Your task to perform on an android device: Open my contact list Image 0: 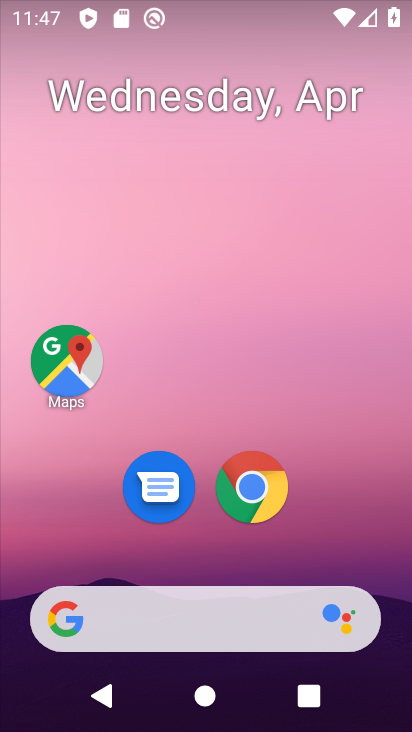
Step 0: drag from (298, 699) to (249, 225)
Your task to perform on an android device: Open my contact list Image 1: 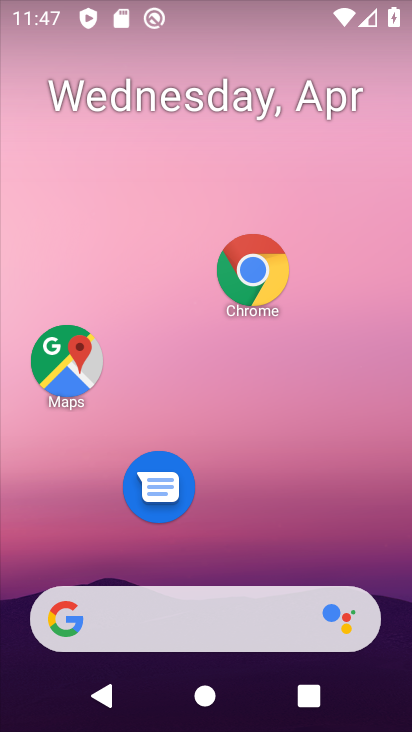
Step 1: drag from (247, 217) to (225, 144)
Your task to perform on an android device: Open my contact list Image 2: 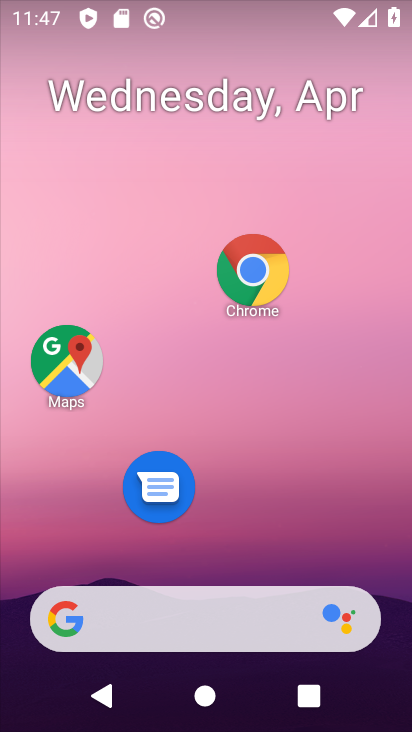
Step 2: drag from (318, 466) to (226, 141)
Your task to perform on an android device: Open my contact list Image 3: 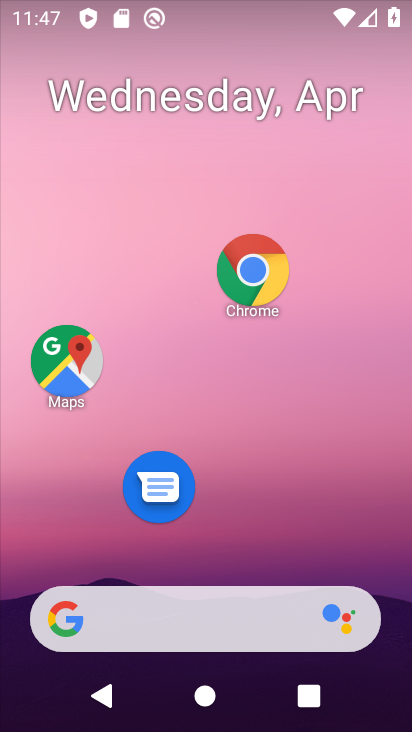
Step 3: drag from (196, 558) to (190, 340)
Your task to perform on an android device: Open my contact list Image 4: 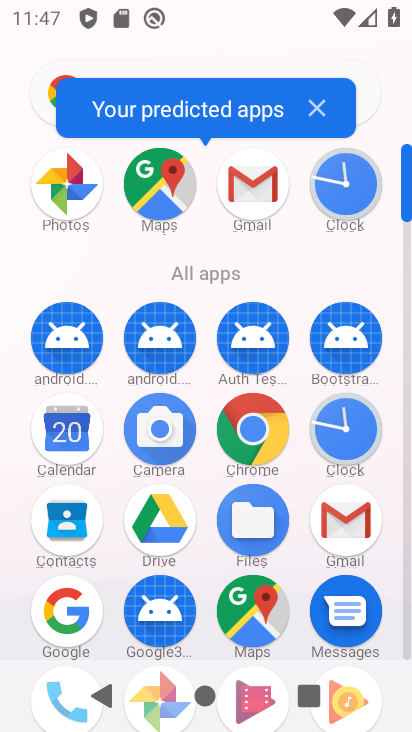
Step 4: click (227, 183)
Your task to perform on an android device: Open my contact list Image 5: 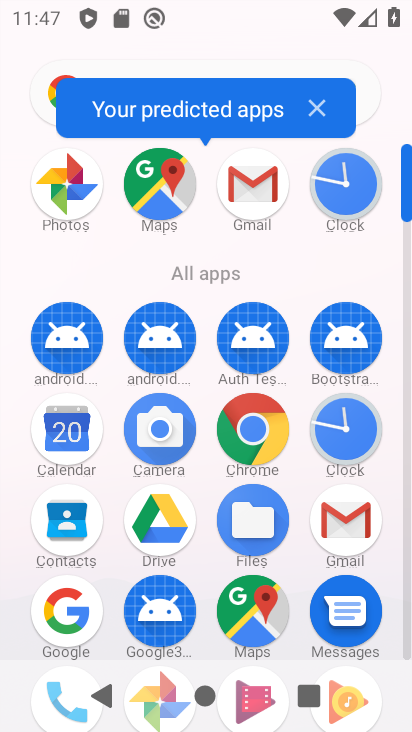
Step 5: drag from (217, 419) to (147, 187)
Your task to perform on an android device: Open my contact list Image 6: 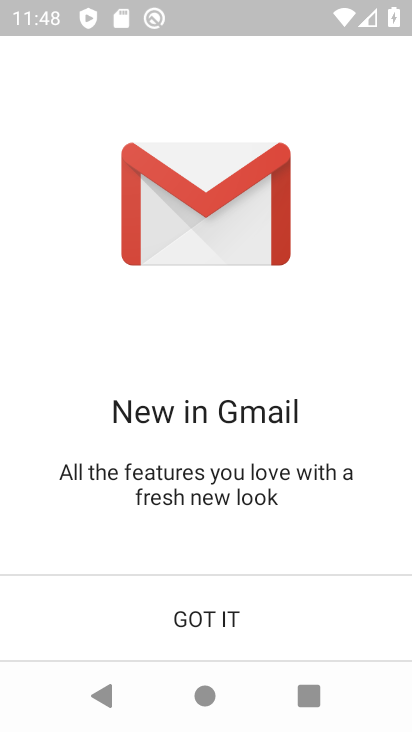
Step 6: click (403, 634)
Your task to perform on an android device: Open my contact list Image 7: 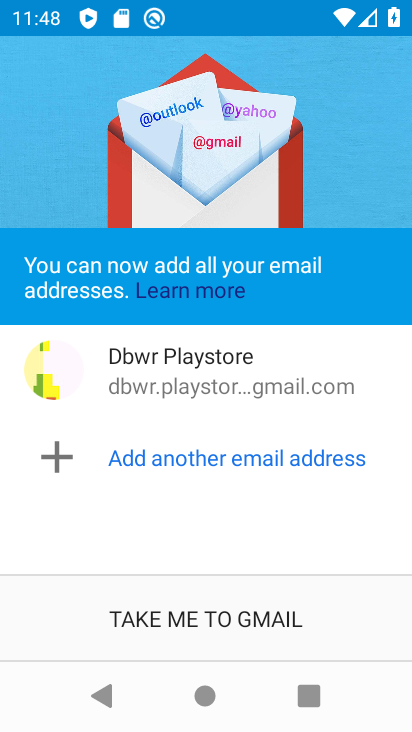
Step 7: press home button
Your task to perform on an android device: Open my contact list Image 8: 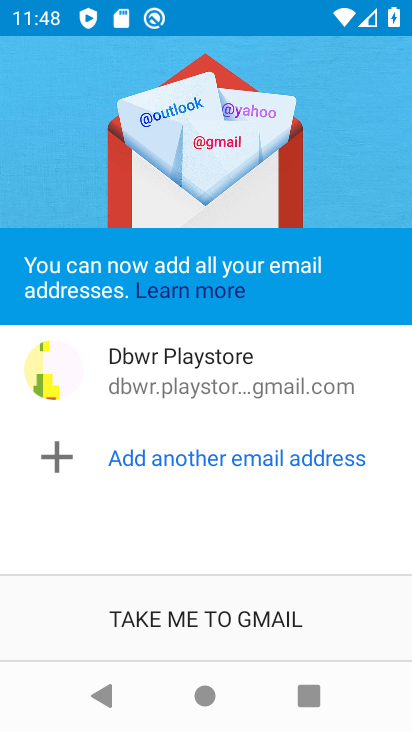
Step 8: press home button
Your task to perform on an android device: Open my contact list Image 9: 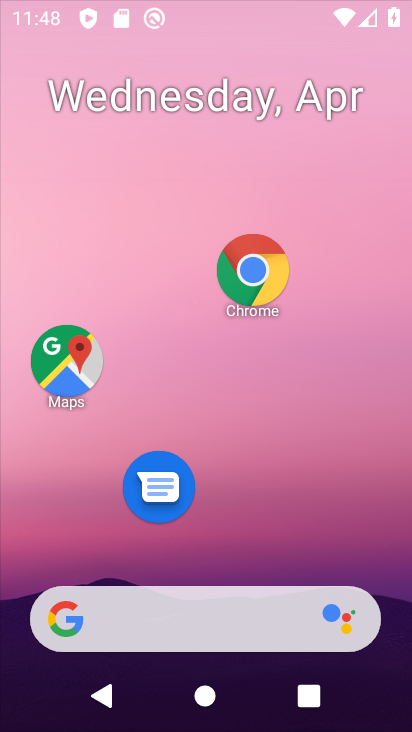
Step 9: press home button
Your task to perform on an android device: Open my contact list Image 10: 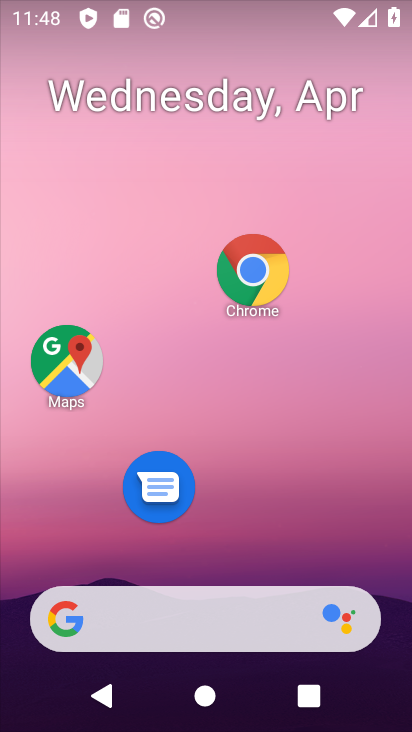
Step 10: press home button
Your task to perform on an android device: Open my contact list Image 11: 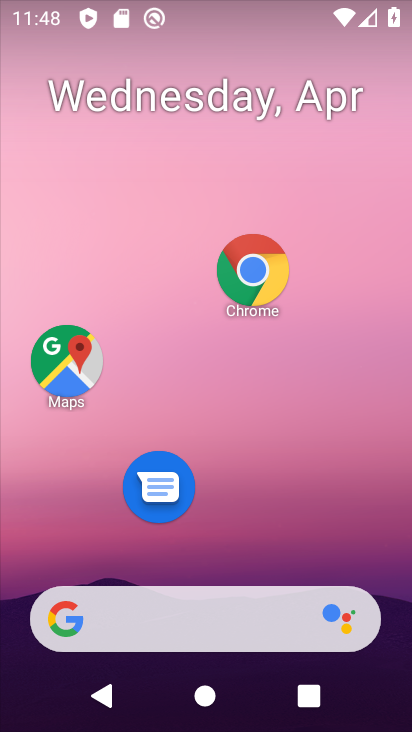
Step 11: press back button
Your task to perform on an android device: Open my contact list Image 12: 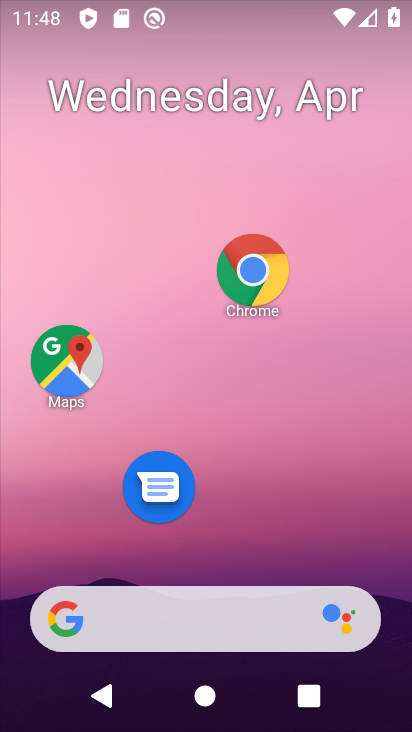
Step 12: drag from (333, 631) to (117, 183)
Your task to perform on an android device: Open my contact list Image 13: 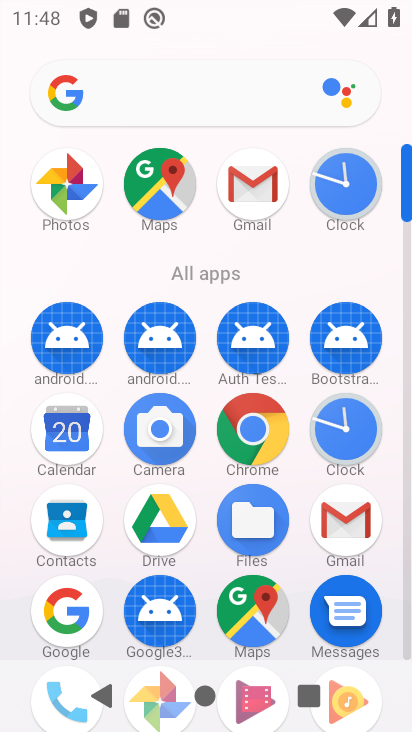
Step 13: click (98, 206)
Your task to perform on an android device: Open my contact list Image 14: 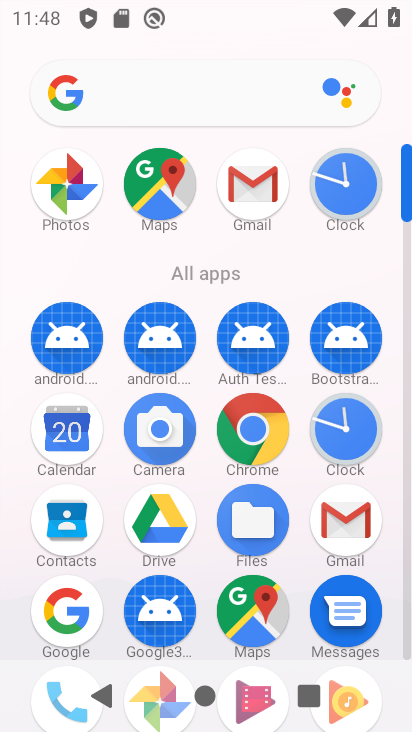
Step 14: click (155, 222)
Your task to perform on an android device: Open my contact list Image 15: 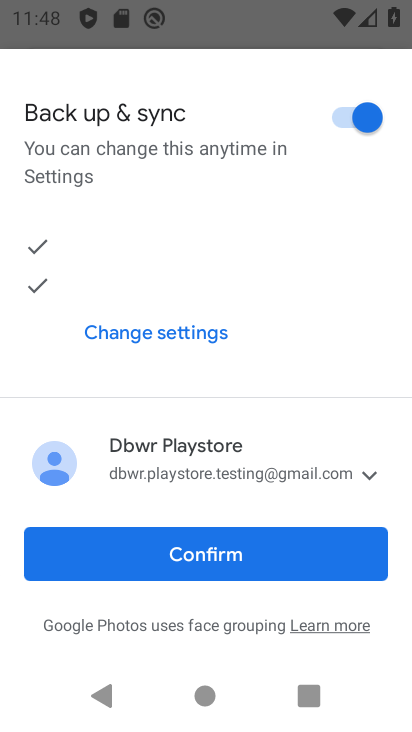
Step 15: press home button
Your task to perform on an android device: Open my contact list Image 16: 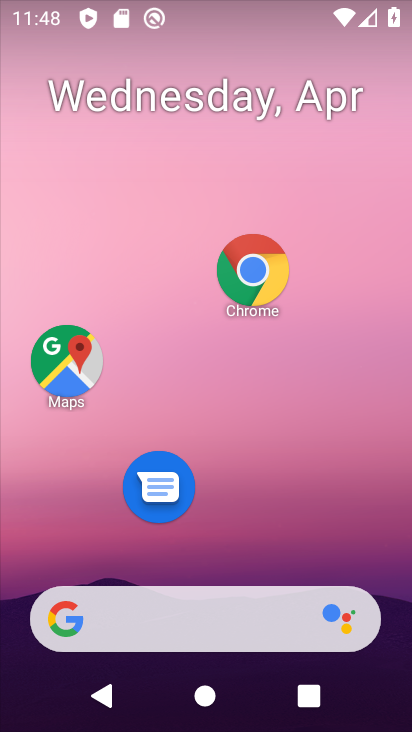
Step 16: click (168, 205)
Your task to perform on an android device: Open my contact list Image 17: 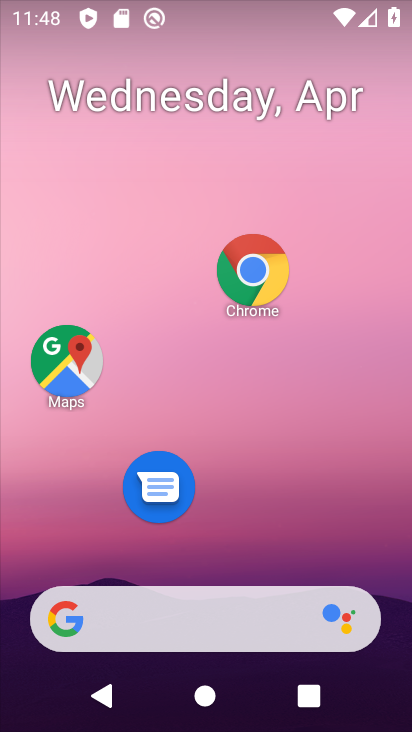
Step 17: drag from (319, 584) to (112, 1)
Your task to perform on an android device: Open my contact list Image 18: 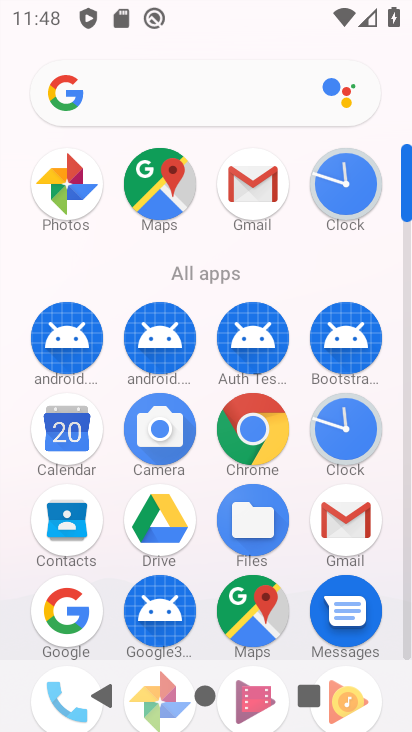
Step 18: click (70, 524)
Your task to perform on an android device: Open my contact list Image 19: 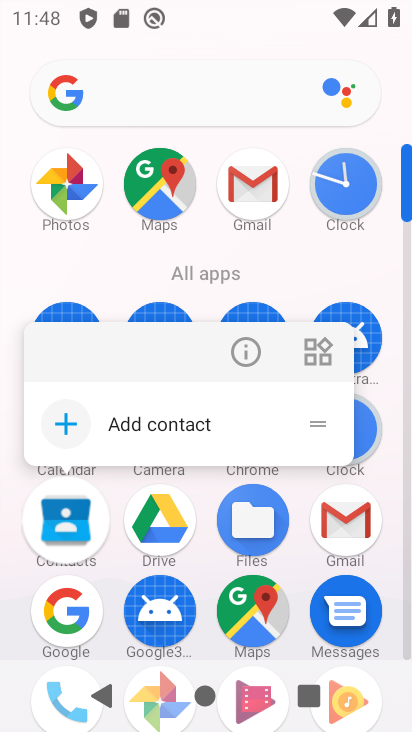
Step 19: click (70, 524)
Your task to perform on an android device: Open my contact list Image 20: 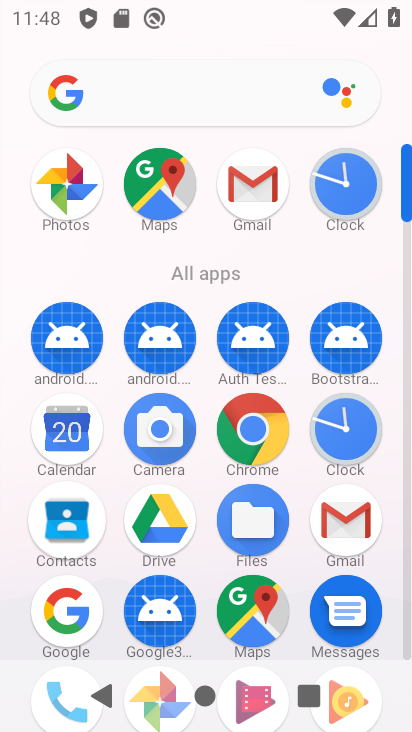
Step 20: click (70, 522)
Your task to perform on an android device: Open my contact list Image 21: 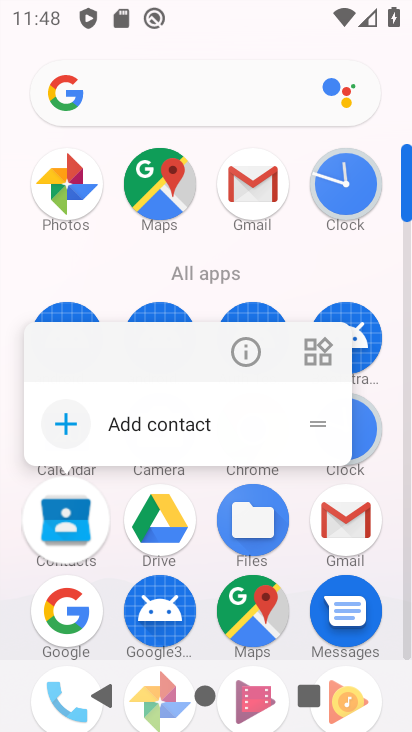
Step 21: click (70, 522)
Your task to perform on an android device: Open my contact list Image 22: 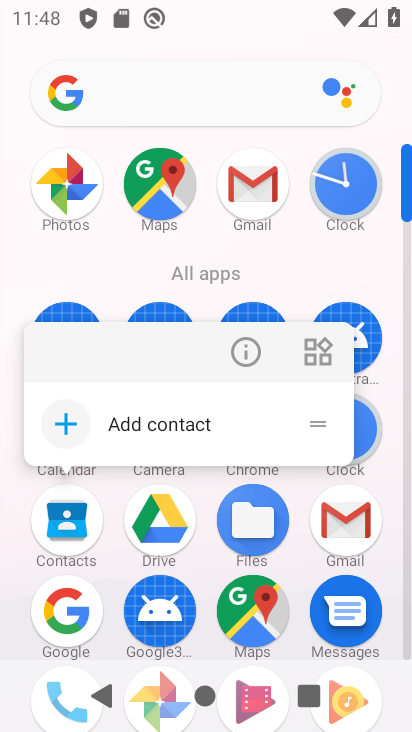
Step 22: click (74, 516)
Your task to perform on an android device: Open my contact list Image 23: 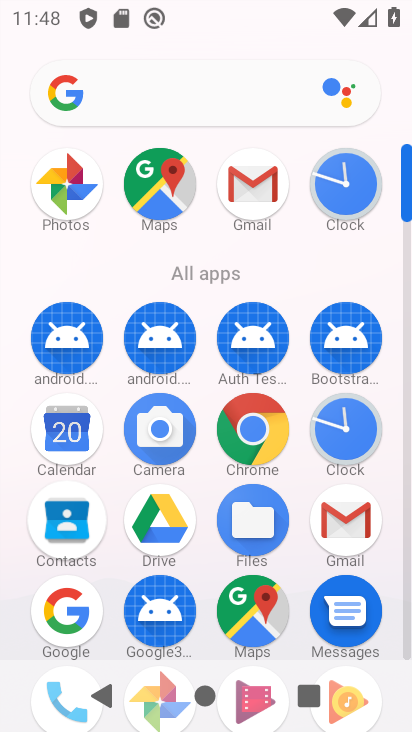
Step 23: click (77, 513)
Your task to perform on an android device: Open my contact list Image 24: 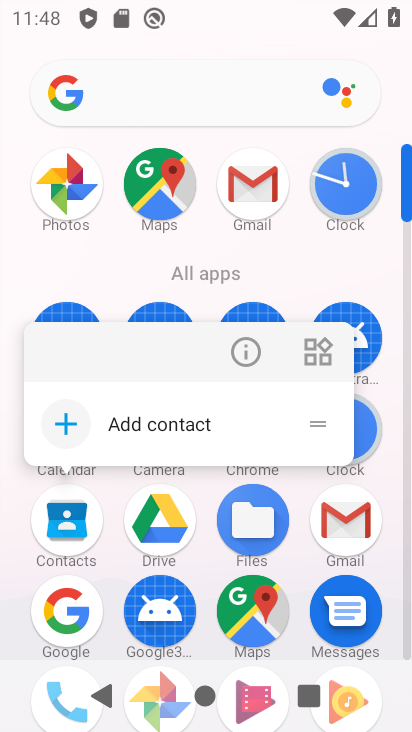
Step 24: drag from (77, 513) to (77, 664)
Your task to perform on an android device: Open my contact list Image 25: 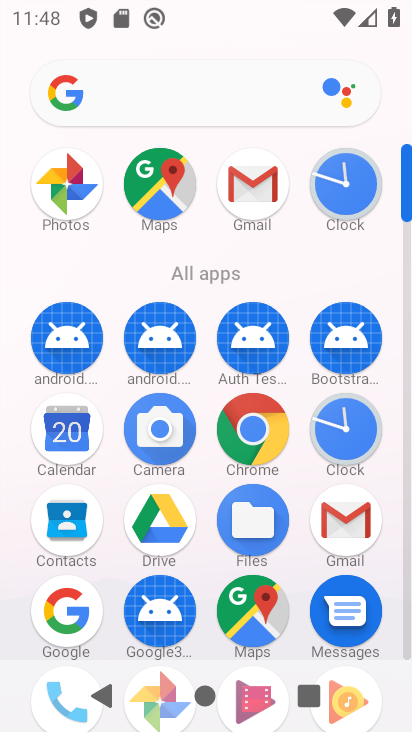
Step 25: click (68, 521)
Your task to perform on an android device: Open my contact list Image 26: 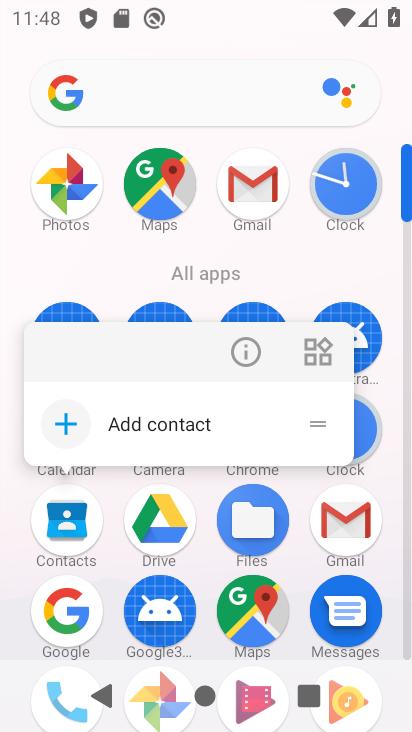
Step 26: click (321, 570)
Your task to perform on an android device: Open my contact list Image 27: 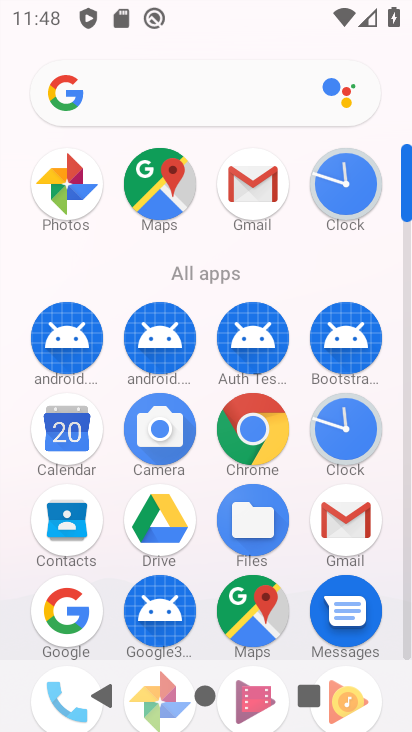
Step 27: click (60, 524)
Your task to perform on an android device: Open my contact list Image 28: 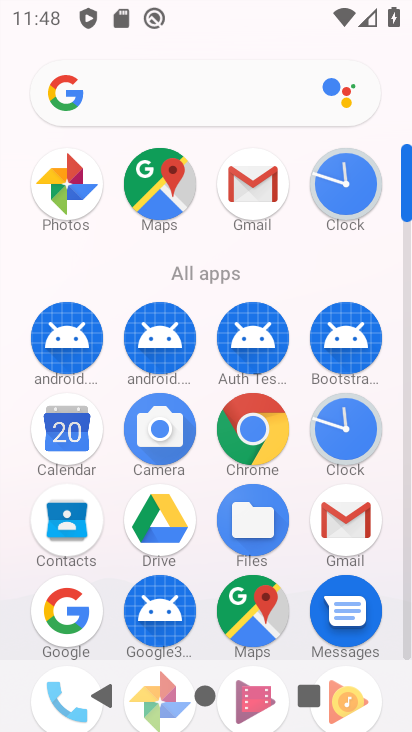
Step 28: click (57, 517)
Your task to perform on an android device: Open my contact list Image 29: 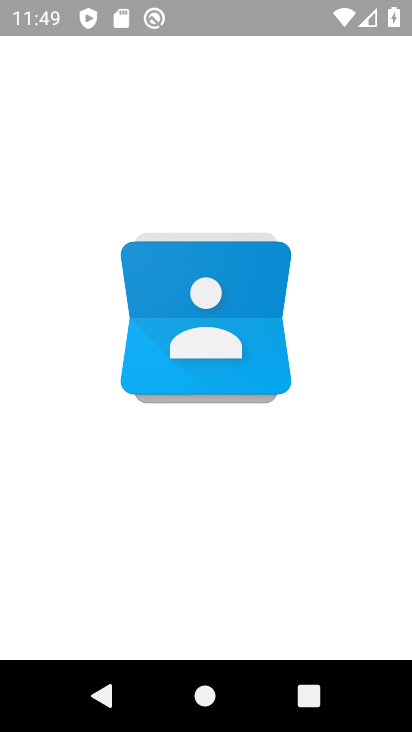
Step 29: click (45, 522)
Your task to perform on an android device: Open my contact list Image 30: 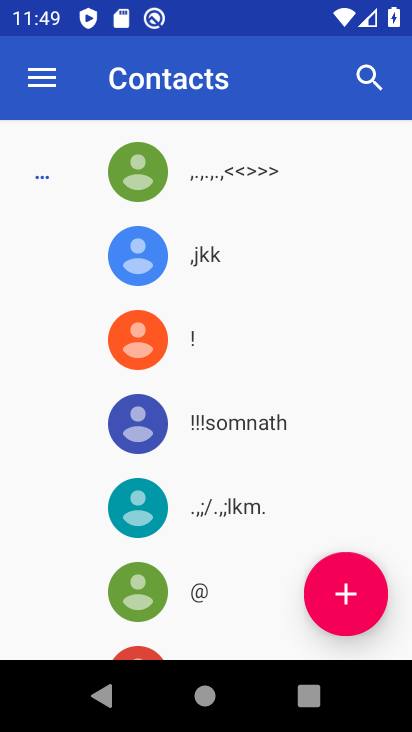
Step 30: click (70, 527)
Your task to perform on an android device: Open my contact list Image 31: 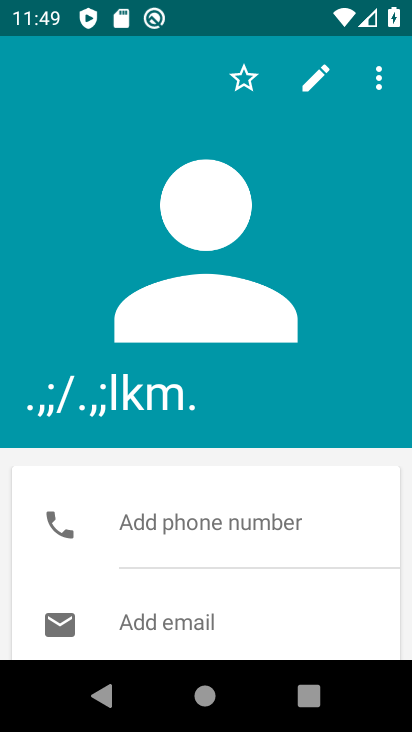
Step 31: click (68, 525)
Your task to perform on an android device: Open my contact list Image 32: 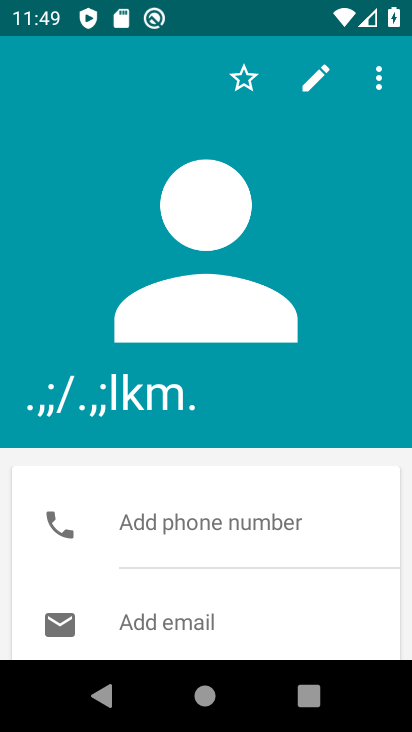
Step 32: task complete